Your task to perform on an android device: toggle translation in the chrome app Image 0: 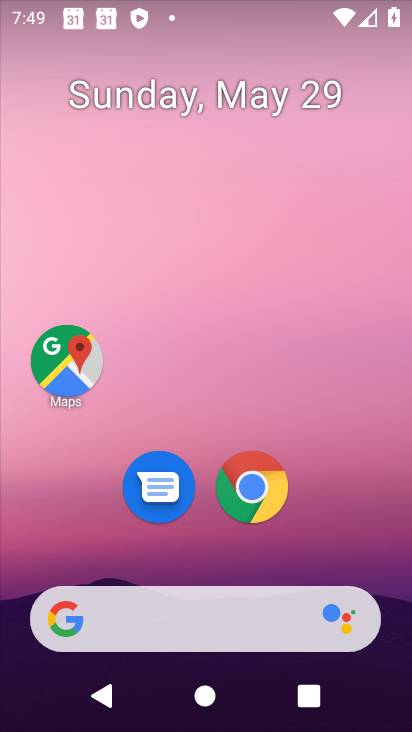
Step 0: drag from (296, 621) to (268, 255)
Your task to perform on an android device: toggle translation in the chrome app Image 1: 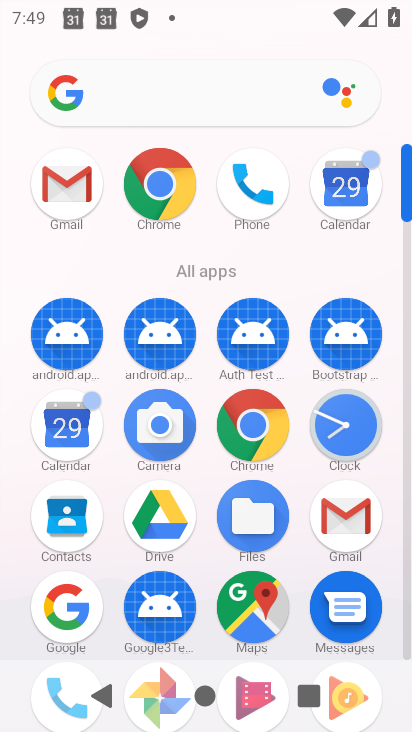
Step 1: click (158, 217)
Your task to perform on an android device: toggle translation in the chrome app Image 2: 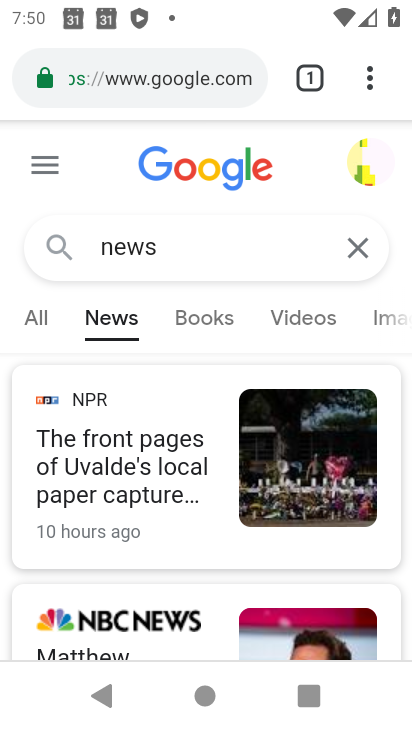
Step 2: click (368, 96)
Your task to perform on an android device: toggle translation in the chrome app Image 3: 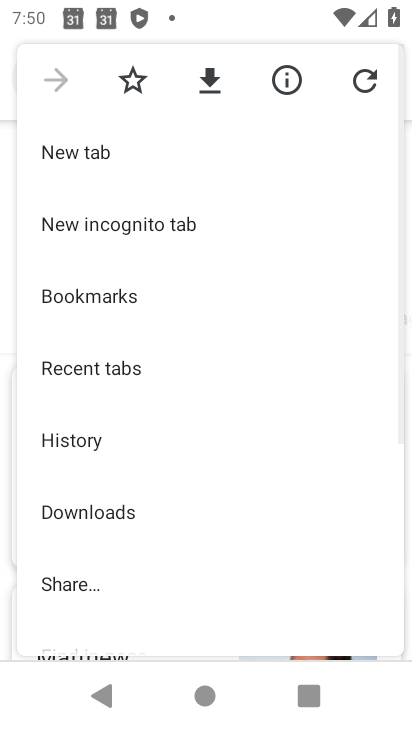
Step 3: drag from (204, 508) to (285, 12)
Your task to perform on an android device: toggle translation in the chrome app Image 4: 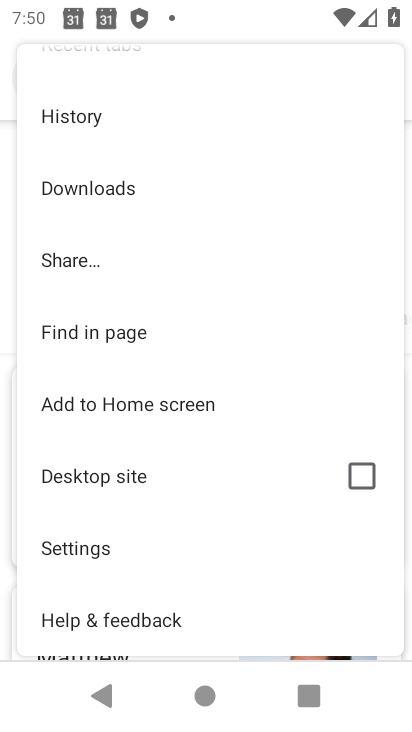
Step 4: click (143, 530)
Your task to perform on an android device: toggle translation in the chrome app Image 5: 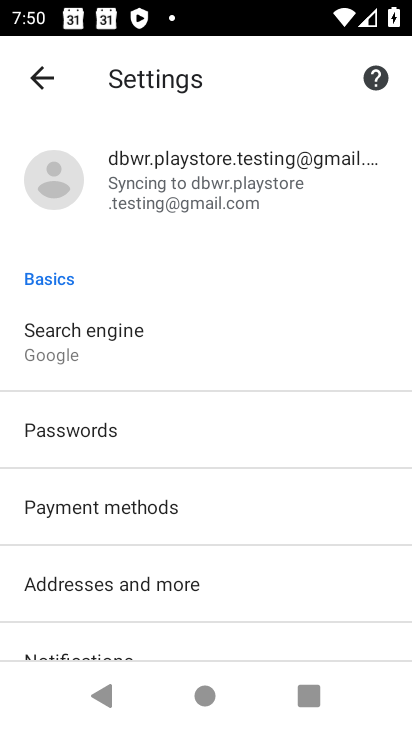
Step 5: drag from (143, 530) to (128, 413)
Your task to perform on an android device: toggle translation in the chrome app Image 6: 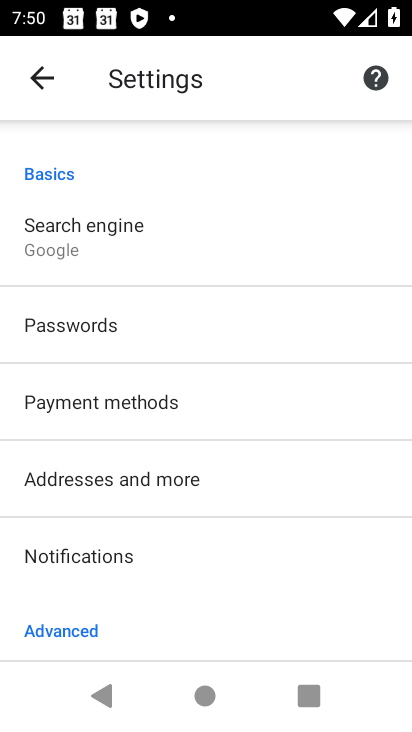
Step 6: click (145, 564)
Your task to perform on an android device: toggle translation in the chrome app Image 7: 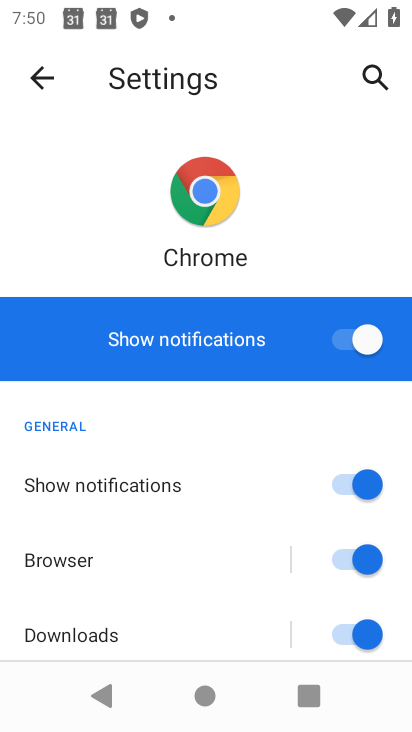
Step 7: click (365, 357)
Your task to perform on an android device: toggle translation in the chrome app Image 8: 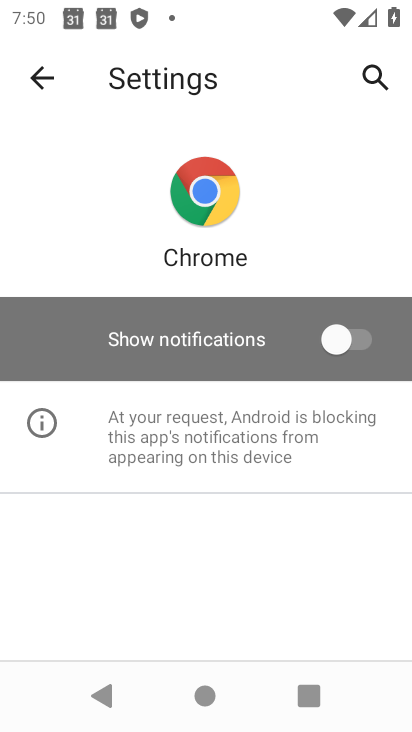
Step 8: task complete